Your task to perform on an android device: Open the calendar and show me this week's events? Image 0: 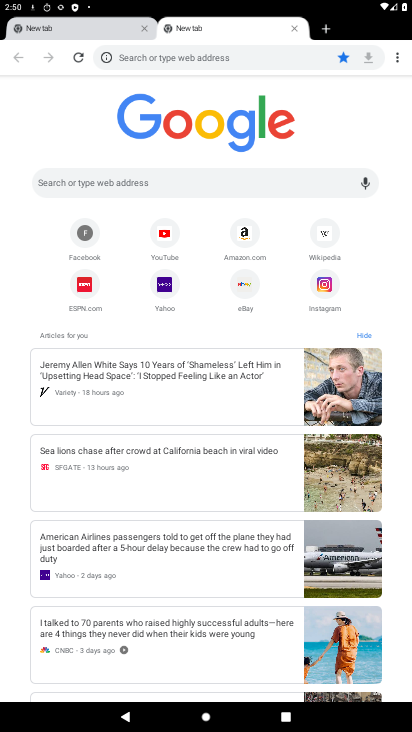
Step 0: press home button
Your task to perform on an android device: Open the calendar and show me this week's events? Image 1: 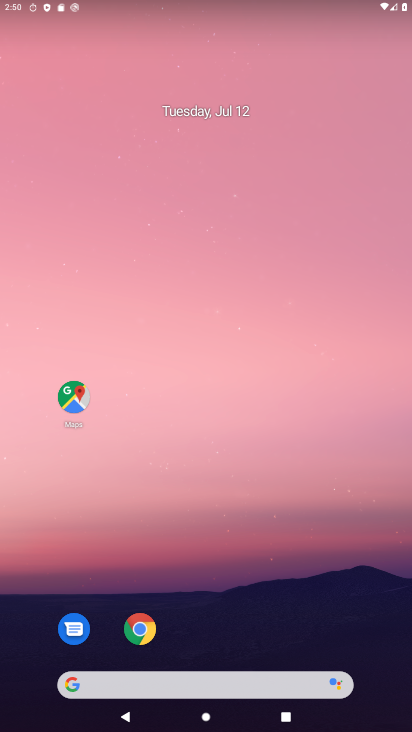
Step 1: drag from (322, 633) to (362, 194)
Your task to perform on an android device: Open the calendar and show me this week's events? Image 2: 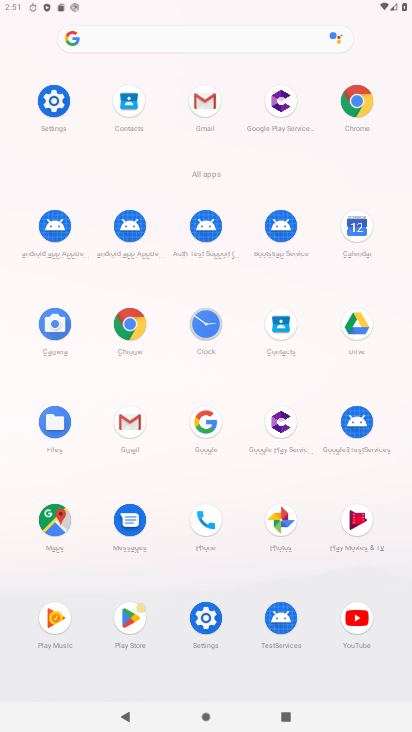
Step 2: click (362, 233)
Your task to perform on an android device: Open the calendar and show me this week's events? Image 3: 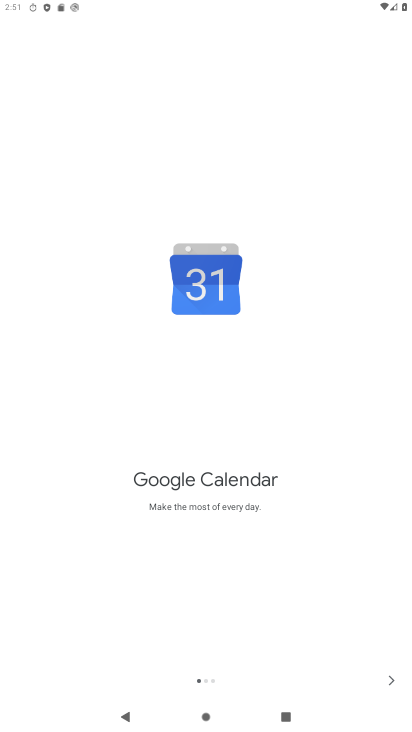
Step 3: click (379, 679)
Your task to perform on an android device: Open the calendar and show me this week's events? Image 4: 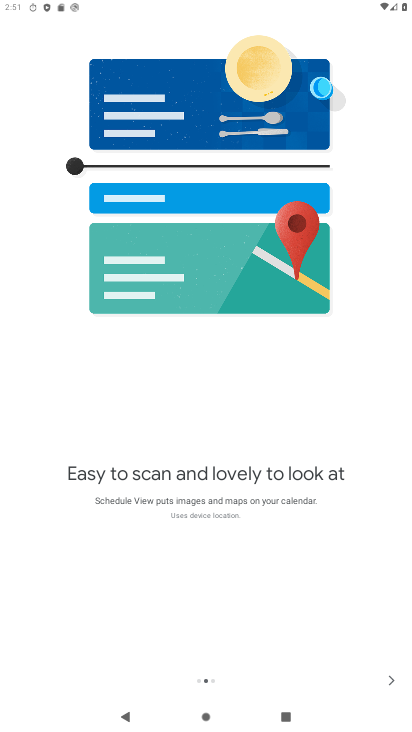
Step 4: click (377, 677)
Your task to perform on an android device: Open the calendar and show me this week's events? Image 5: 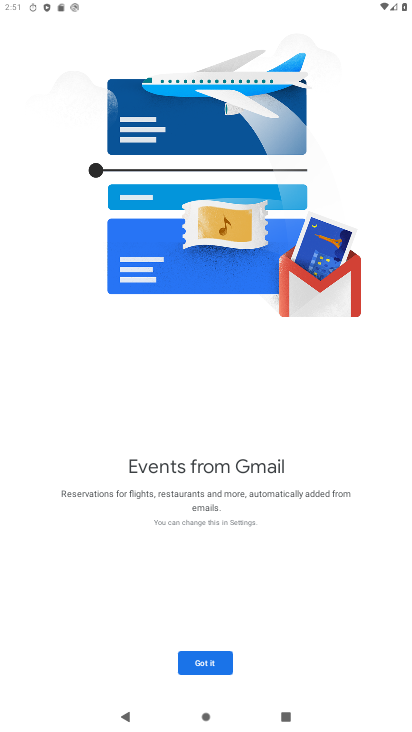
Step 5: click (223, 652)
Your task to perform on an android device: Open the calendar and show me this week's events? Image 6: 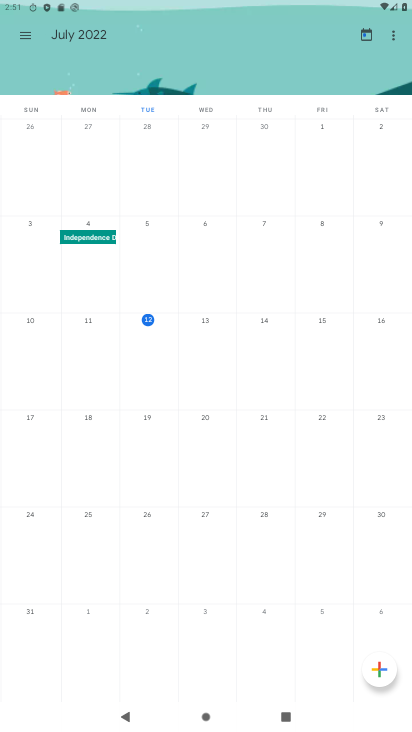
Step 6: click (320, 323)
Your task to perform on an android device: Open the calendar and show me this week's events? Image 7: 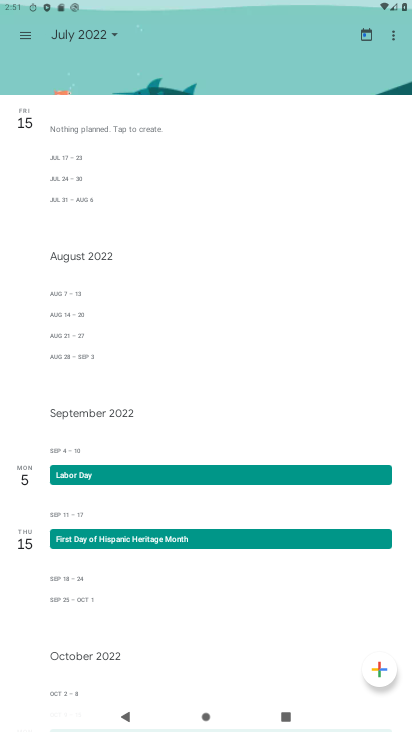
Step 7: task complete